Your task to perform on an android device: make emails show in primary in the gmail app Image 0: 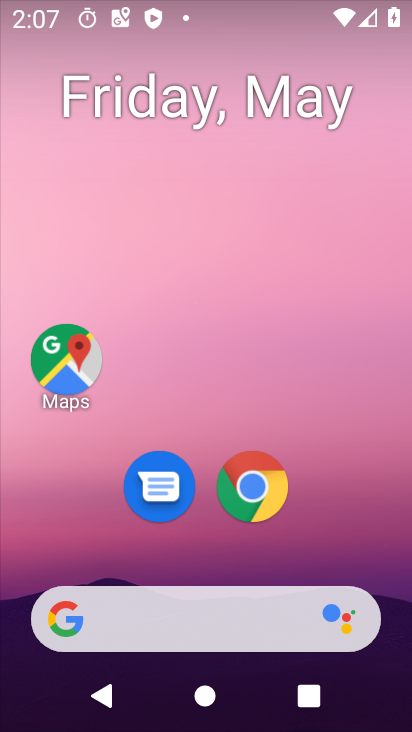
Step 0: drag from (385, 655) to (353, 221)
Your task to perform on an android device: make emails show in primary in the gmail app Image 1: 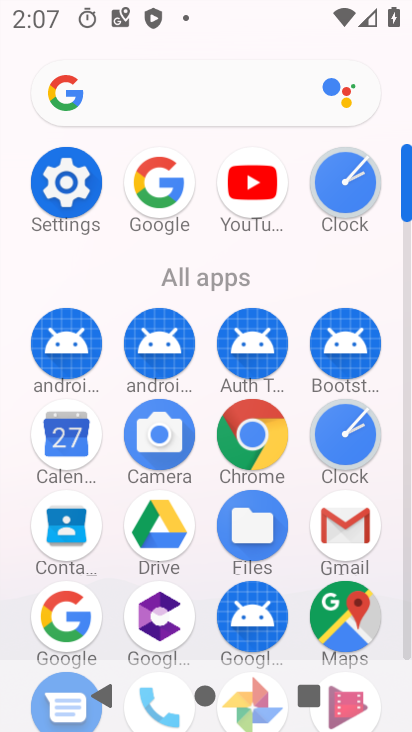
Step 1: click (343, 524)
Your task to perform on an android device: make emails show in primary in the gmail app Image 2: 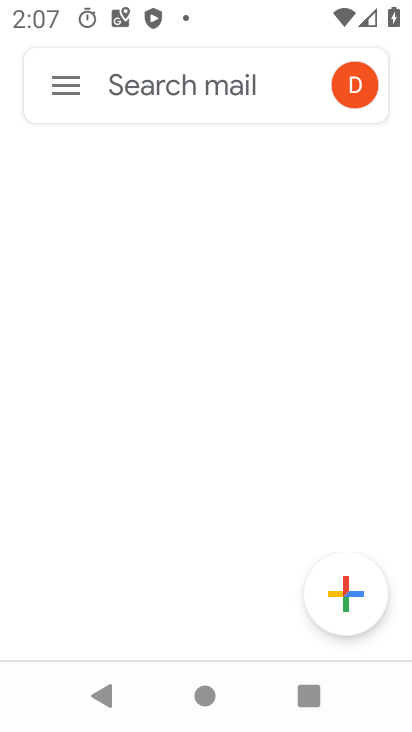
Step 2: click (61, 86)
Your task to perform on an android device: make emails show in primary in the gmail app Image 3: 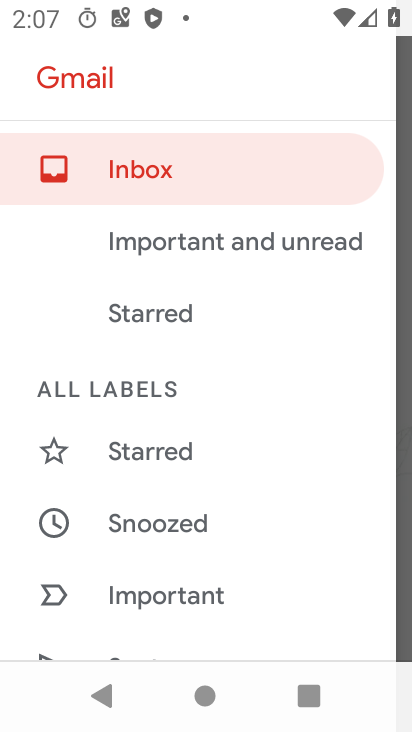
Step 3: drag from (274, 612) to (244, 282)
Your task to perform on an android device: make emails show in primary in the gmail app Image 4: 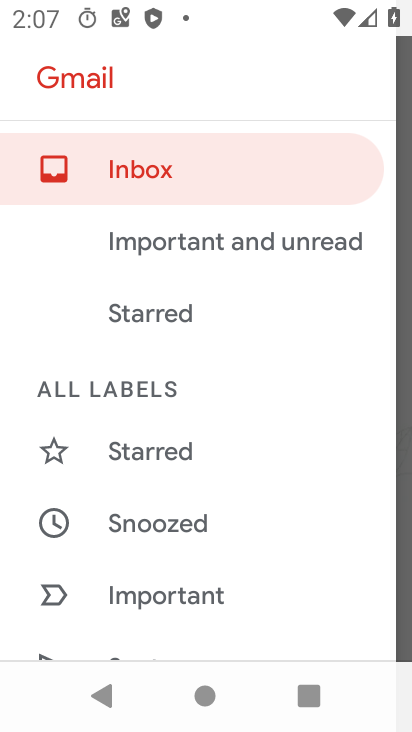
Step 4: drag from (288, 640) to (313, 90)
Your task to perform on an android device: make emails show in primary in the gmail app Image 5: 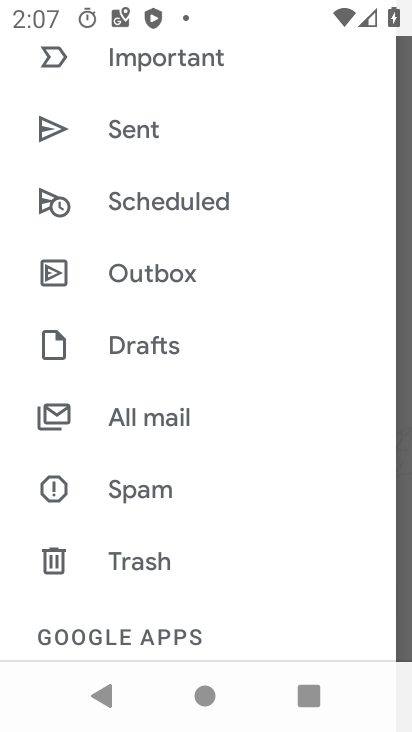
Step 5: drag from (274, 595) to (269, 190)
Your task to perform on an android device: make emails show in primary in the gmail app Image 6: 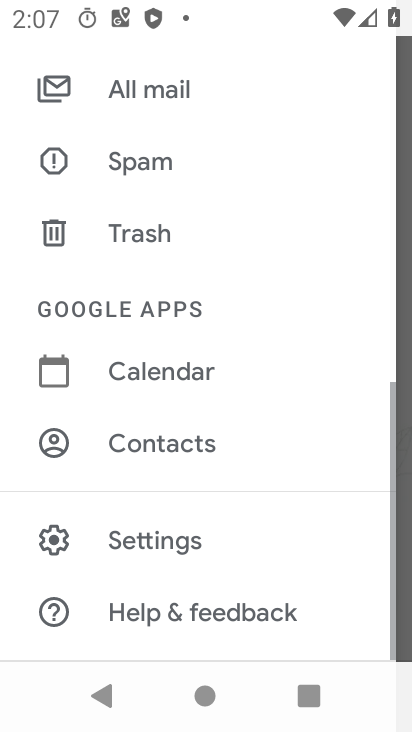
Step 6: click (103, 537)
Your task to perform on an android device: make emails show in primary in the gmail app Image 7: 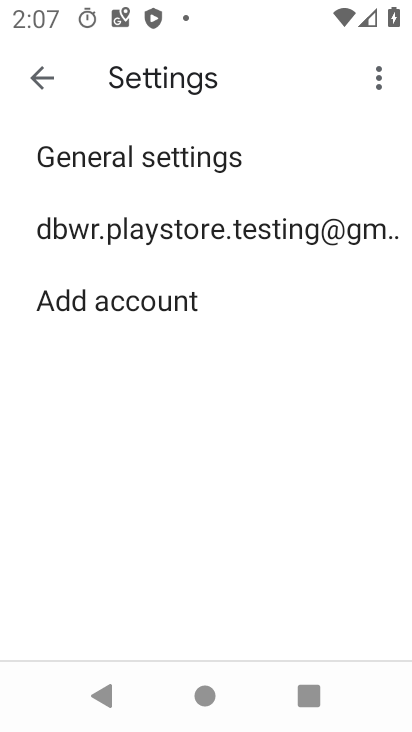
Step 7: click (102, 231)
Your task to perform on an android device: make emails show in primary in the gmail app Image 8: 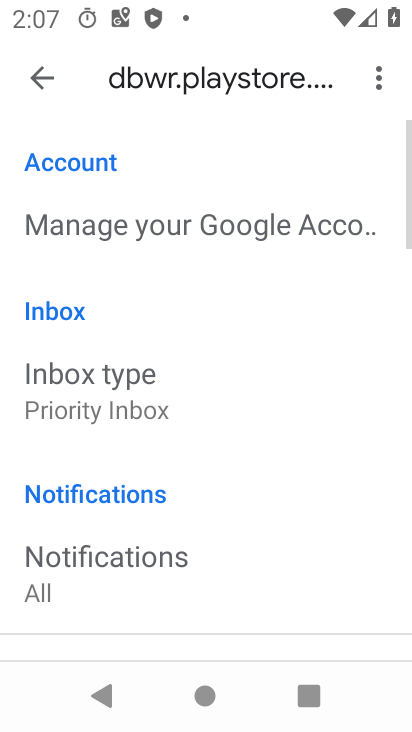
Step 8: click (97, 395)
Your task to perform on an android device: make emails show in primary in the gmail app Image 9: 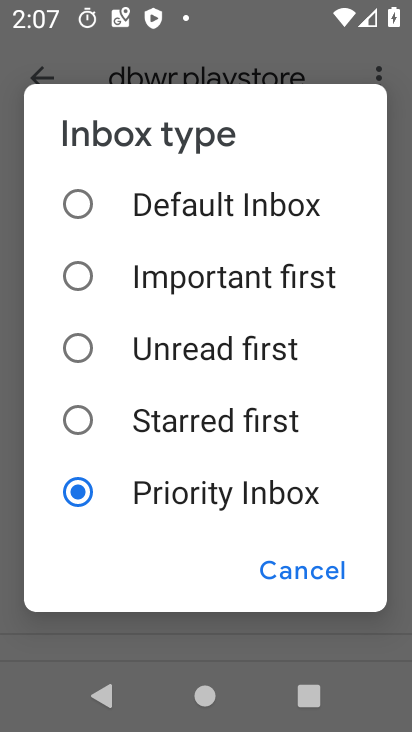
Step 9: click (71, 197)
Your task to perform on an android device: make emails show in primary in the gmail app Image 10: 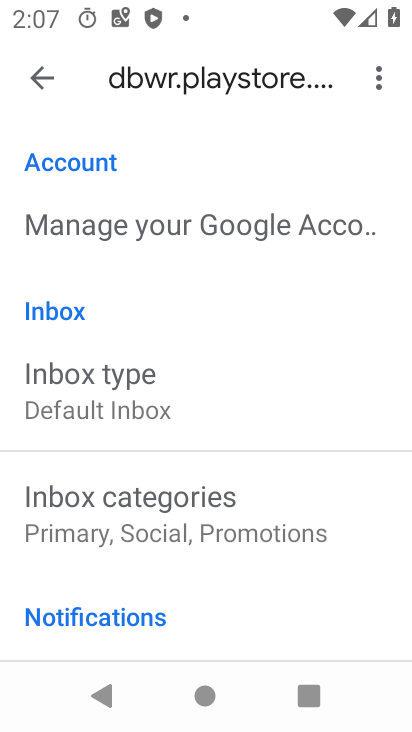
Step 10: click (91, 513)
Your task to perform on an android device: make emails show in primary in the gmail app Image 11: 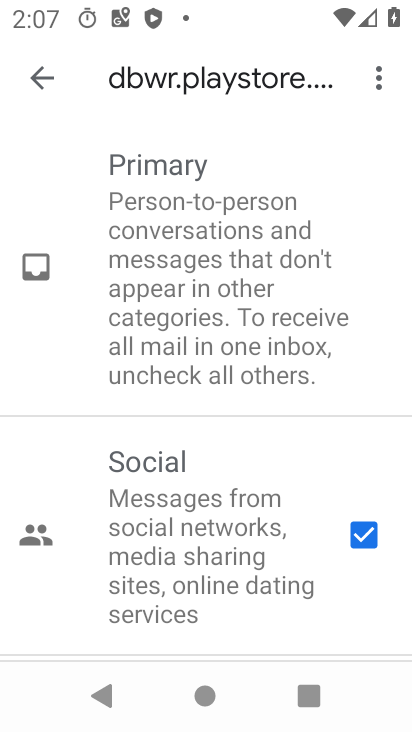
Step 11: click (361, 544)
Your task to perform on an android device: make emails show in primary in the gmail app Image 12: 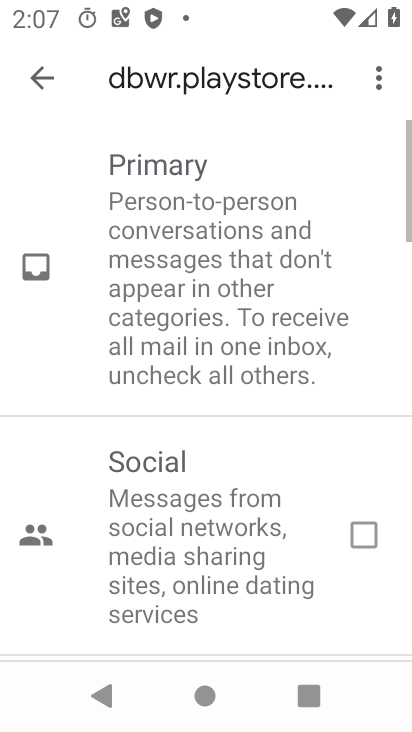
Step 12: drag from (284, 603) to (281, 190)
Your task to perform on an android device: make emails show in primary in the gmail app Image 13: 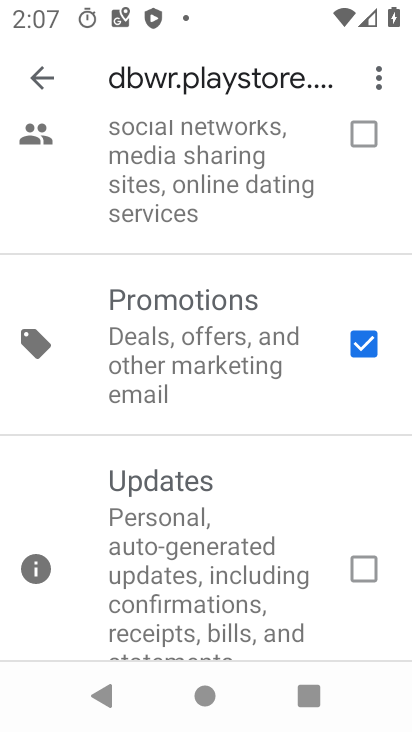
Step 13: click (352, 347)
Your task to perform on an android device: make emails show in primary in the gmail app Image 14: 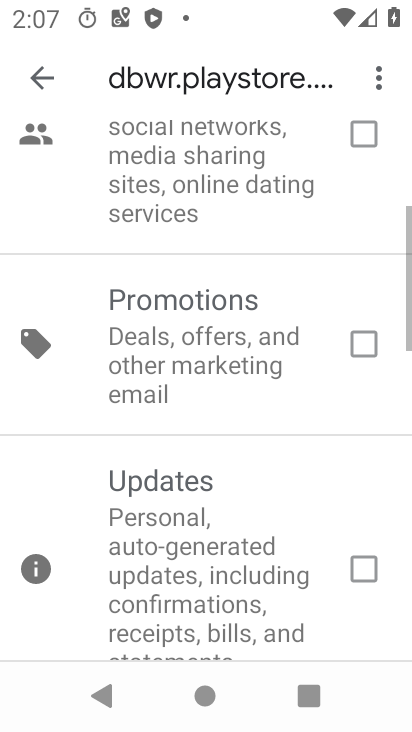
Step 14: click (35, 74)
Your task to perform on an android device: make emails show in primary in the gmail app Image 15: 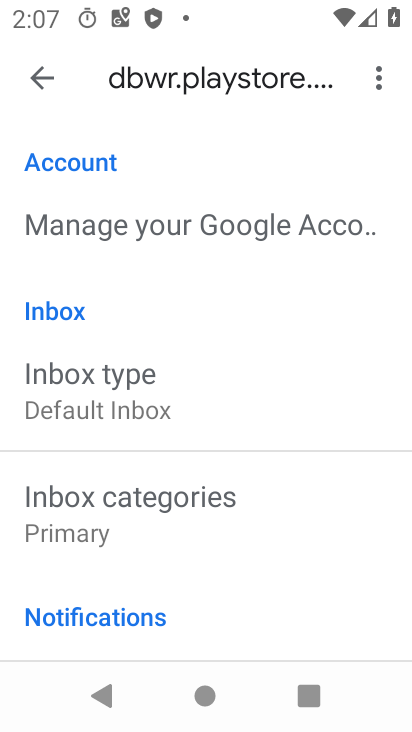
Step 15: task complete